Your task to perform on an android device: turn on priority inbox in the gmail app Image 0: 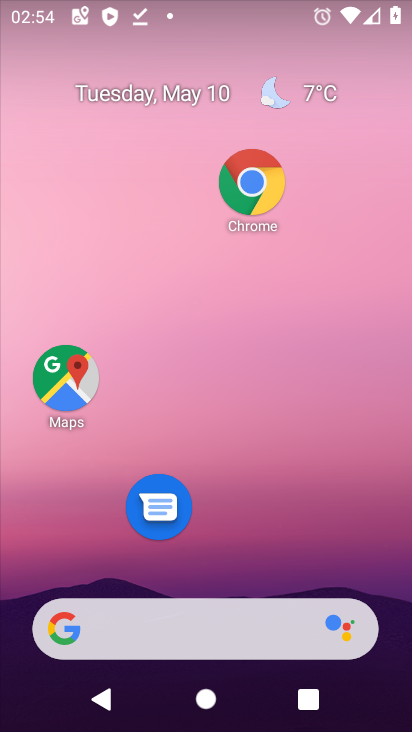
Step 0: drag from (276, 543) to (217, 124)
Your task to perform on an android device: turn on priority inbox in the gmail app Image 1: 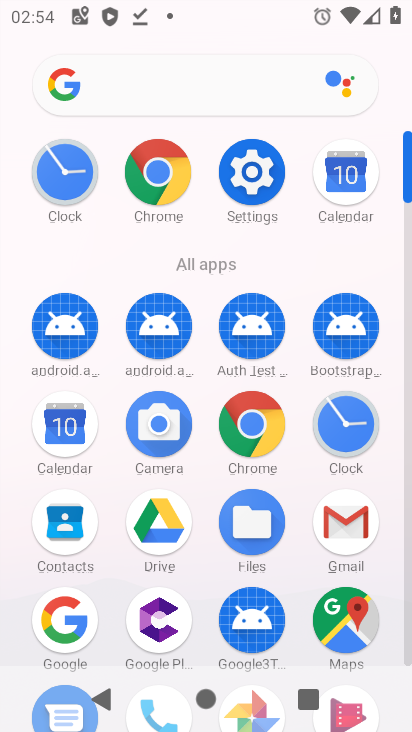
Step 1: click (323, 528)
Your task to perform on an android device: turn on priority inbox in the gmail app Image 2: 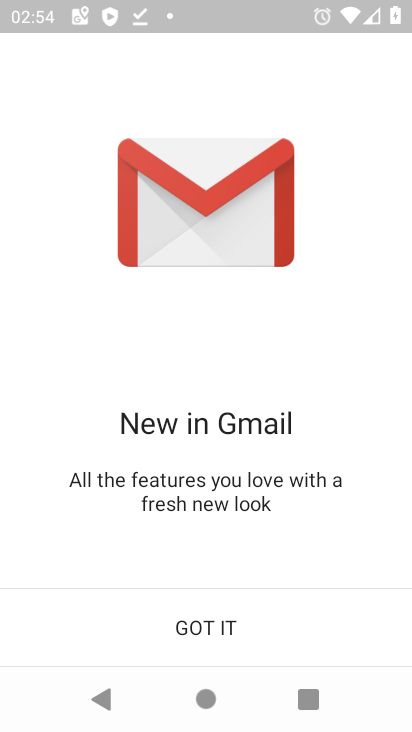
Step 2: click (203, 620)
Your task to perform on an android device: turn on priority inbox in the gmail app Image 3: 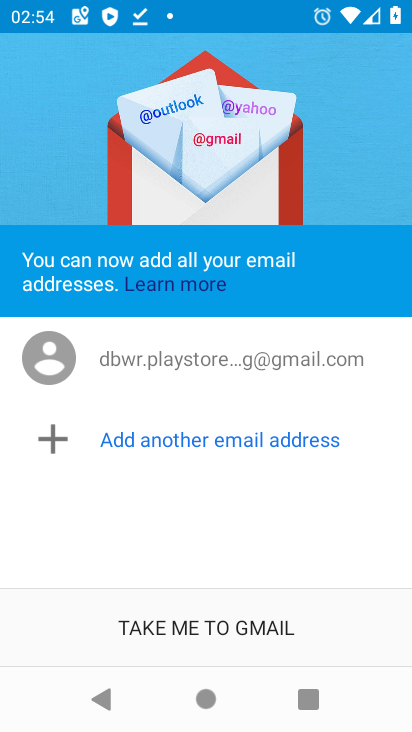
Step 3: click (203, 620)
Your task to perform on an android device: turn on priority inbox in the gmail app Image 4: 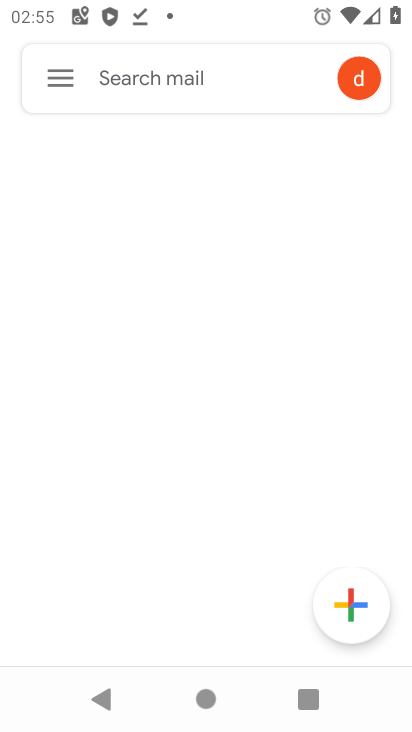
Step 4: click (52, 69)
Your task to perform on an android device: turn on priority inbox in the gmail app Image 5: 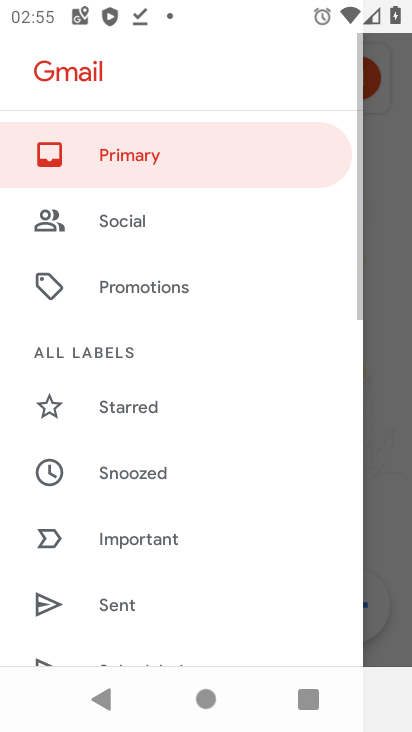
Step 5: drag from (141, 461) to (124, 195)
Your task to perform on an android device: turn on priority inbox in the gmail app Image 6: 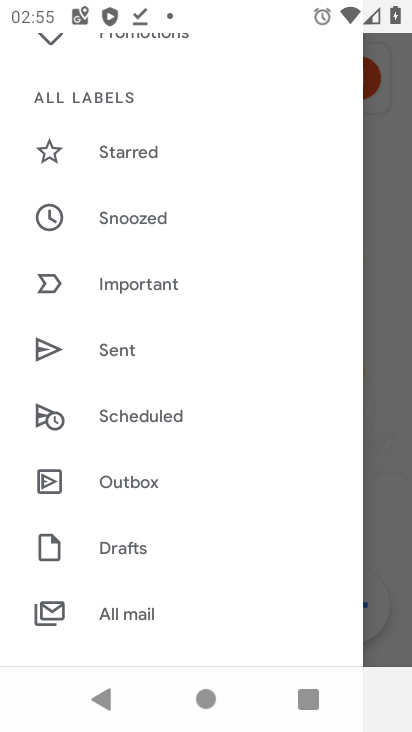
Step 6: drag from (146, 612) to (148, 555)
Your task to perform on an android device: turn on priority inbox in the gmail app Image 7: 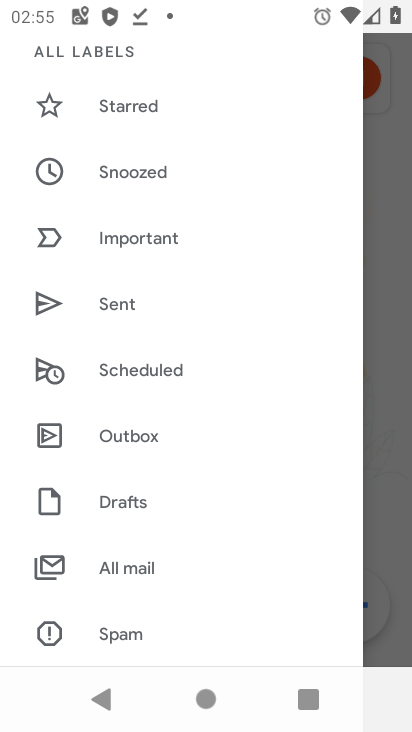
Step 7: drag from (149, 622) to (50, 84)
Your task to perform on an android device: turn on priority inbox in the gmail app Image 8: 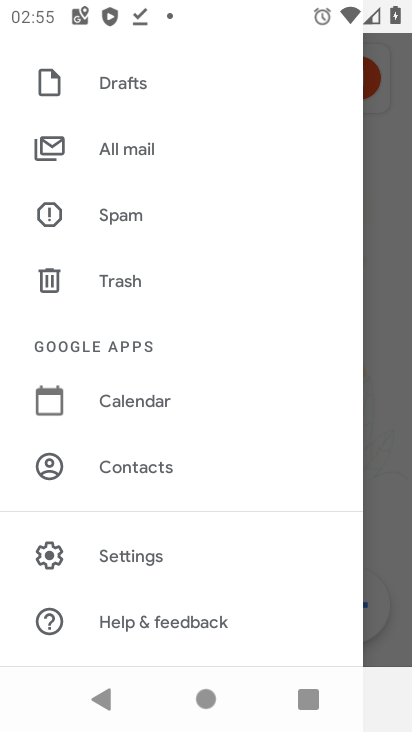
Step 8: click (126, 544)
Your task to perform on an android device: turn on priority inbox in the gmail app Image 9: 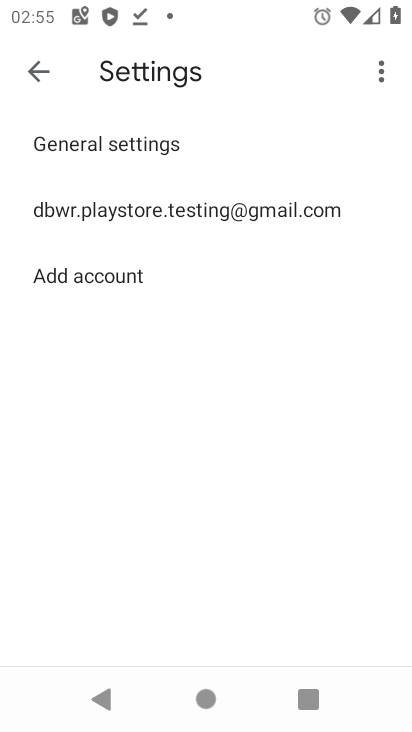
Step 9: click (85, 210)
Your task to perform on an android device: turn on priority inbox in the gmail app Image 10: 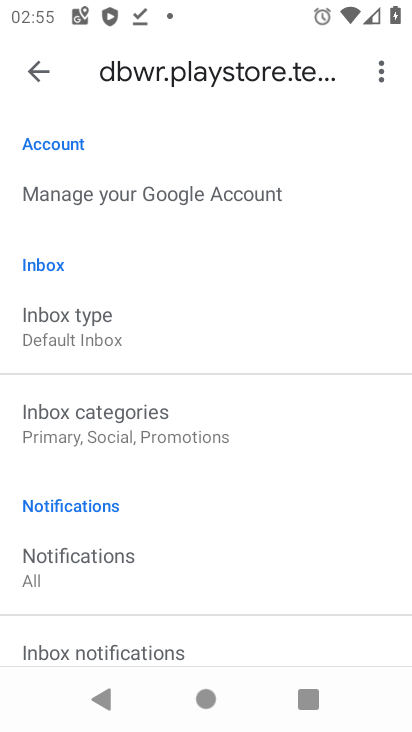
Step 10: click (112, 316)
Your task to perform on an android device: turn on priority inbox in the gmail app Image 11: 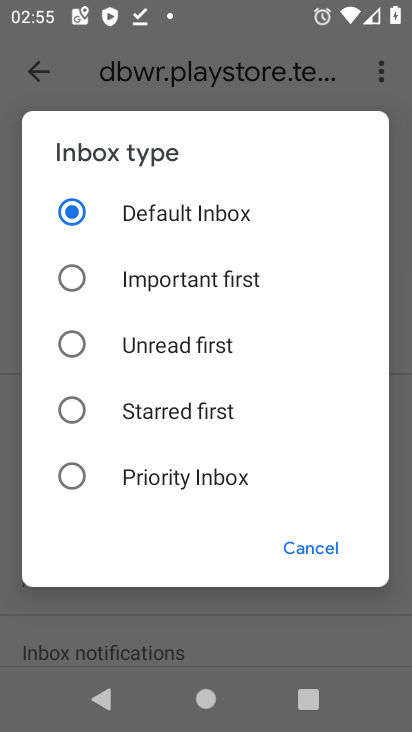
Step 11: click (174, 472)
Your task to perform on an android device: turn on priority inbox in the gmail app Image 12: 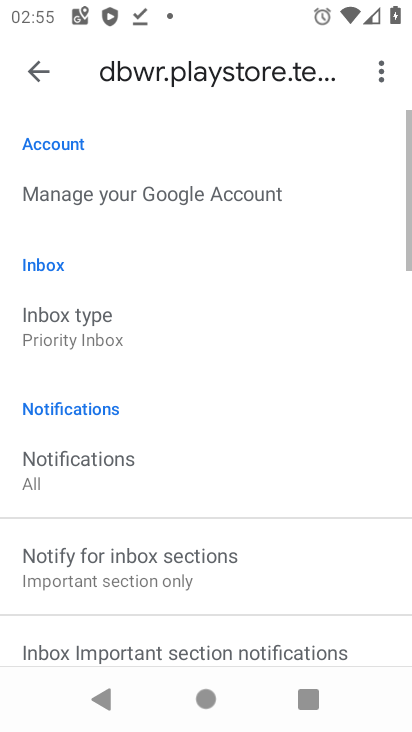
Step 12: task complete